Your task to perform on an android device: Go to Amazon Image 0: 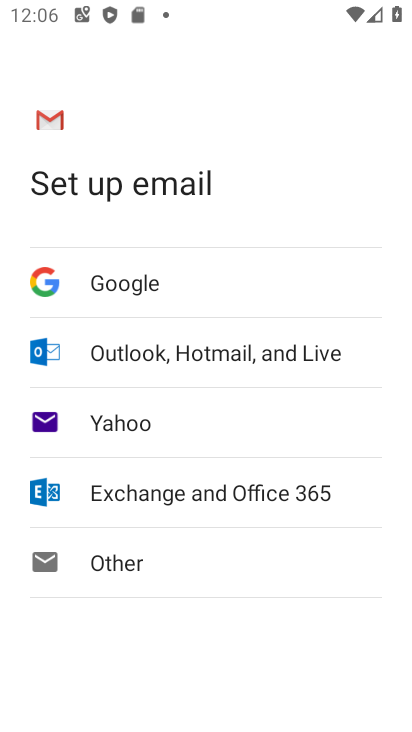
Step 0: press home button
Your task to perform on an android device: Go to Amazon Image 1: 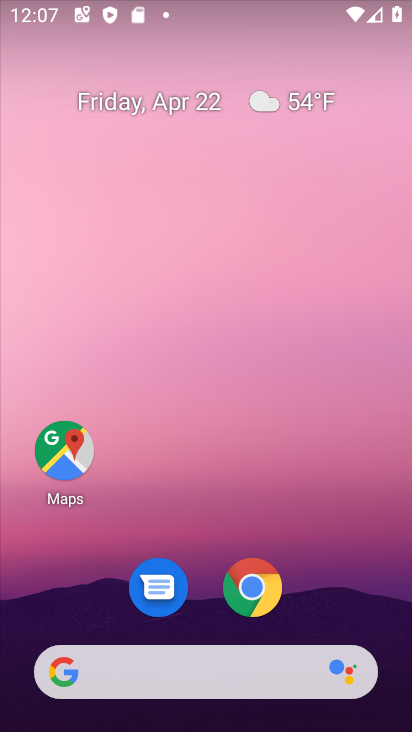
Step 1: click (254, 592)
Your task to perform on an android device: Go to Amazon Image 2: 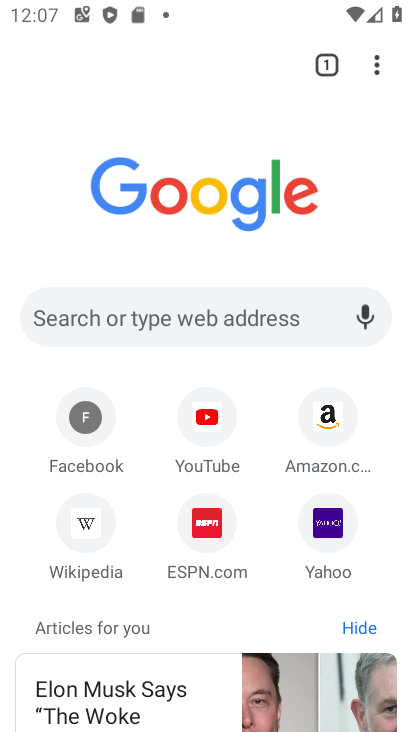
Step 2: click (328, 436)
Your task to perform on an android device: Go to Amazon Image 3: 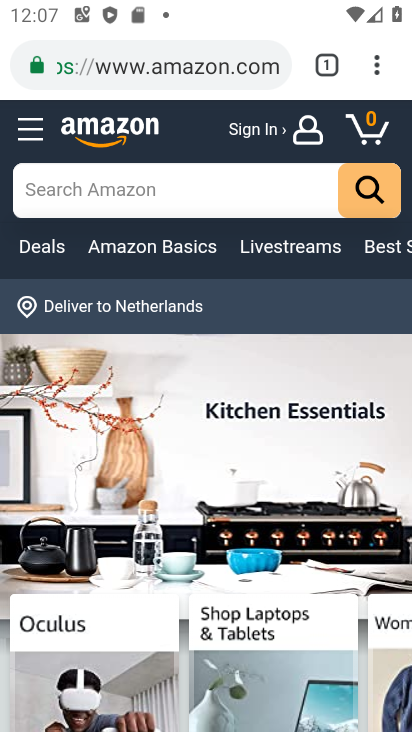
Step 3: task complete